Your task to perform on an android device: check google app version Image 0: 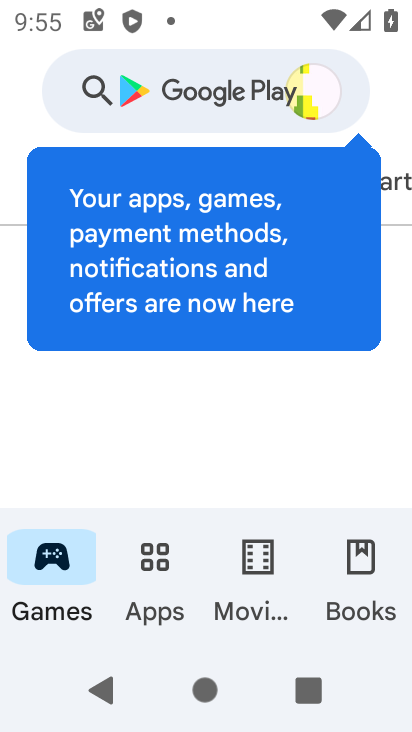
Step 0: press home button
Your task to perform on an android device: check google app version Image 1: 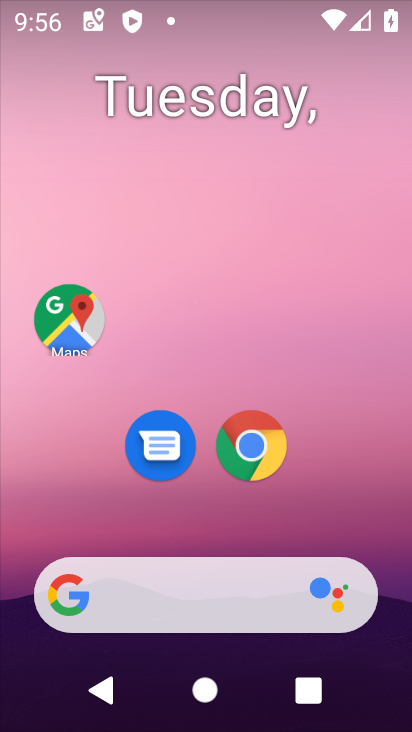
Step 1: drag from (389, 564) to (316, 109)
Your task to perform on an android device: check google app version Image 2: 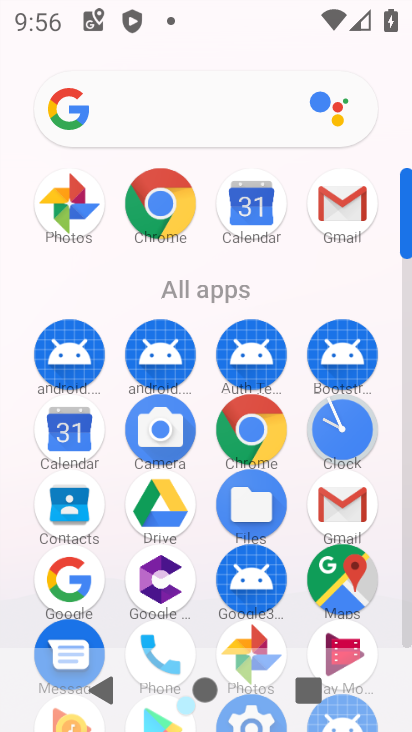
Step 2: click (174, 202)
Your task to perform on an android device: check google app version Image 3: 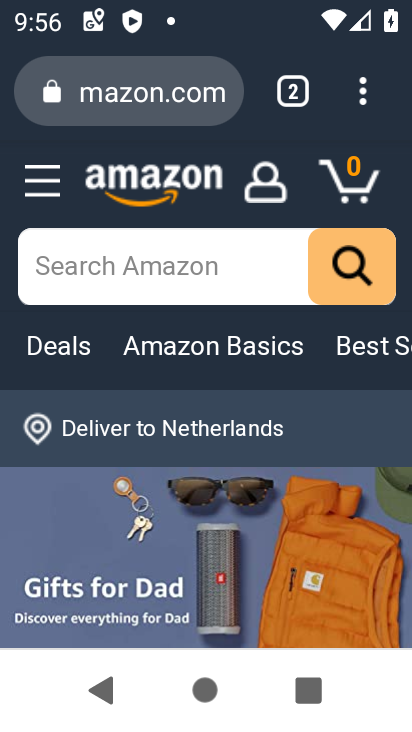
Step 3: click (353, 98)
Your task to perform on an android device: check google app version Image 4: 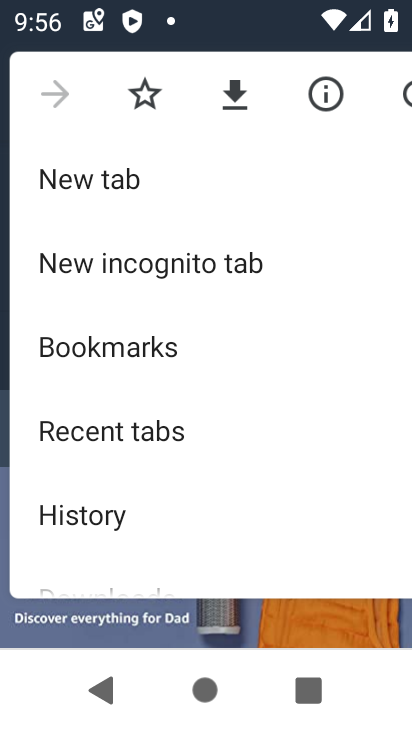
Step 4: drag from (168, 564) to (130, 213)
Your task to perform on an android device: check google app version Image 5: 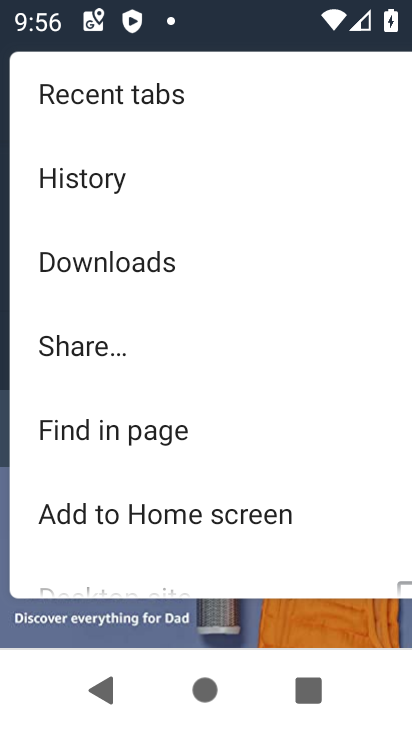
Step 5: drag from (149, 537) to (115, 186)
Your task to perform on an android device: check google app version Image 6: 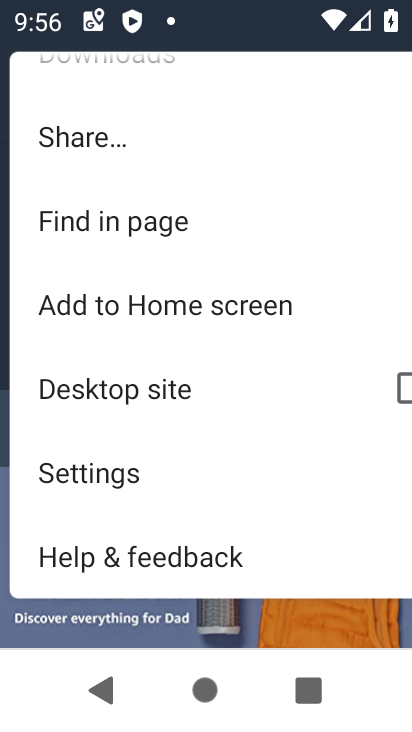
Step 6: click (137, 544)
Your task to perform on an android device: check google app version Image 7: 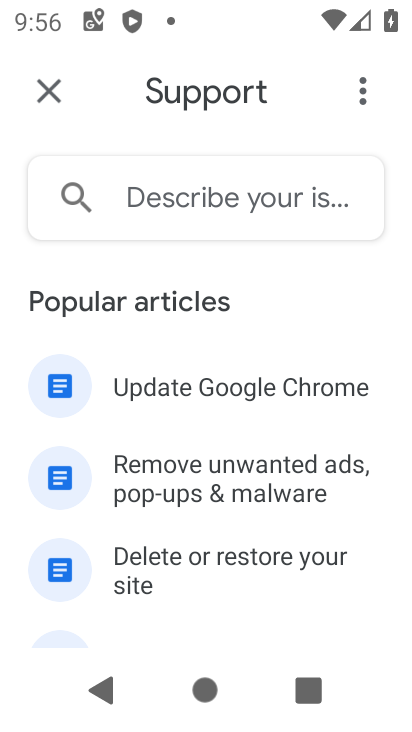
Step 7: click (359, 90)
Your task to perform on an android device: check google app version Image 8: 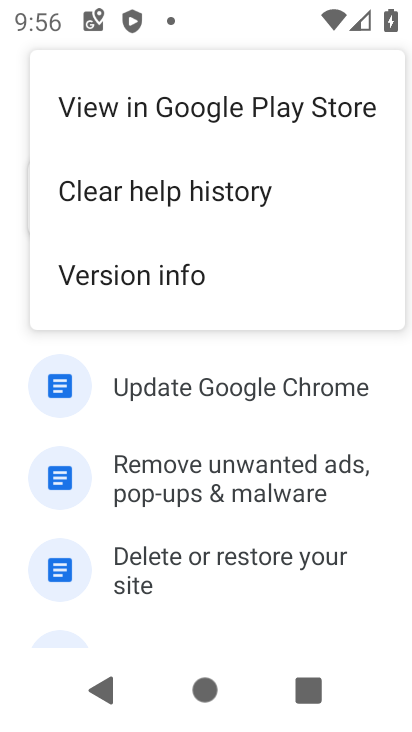
Step 8: click (184, 294)
Your task to perform on an android device: check google app version Image 9: 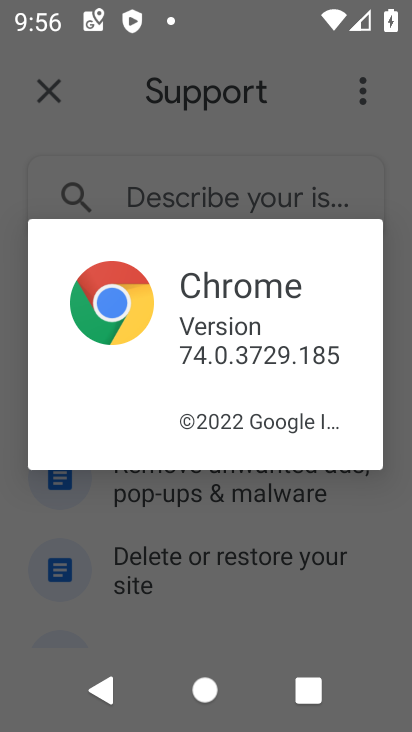
Step 9: task complete